Your task to perform on an android device: toggle pop-ups in chrome Image 0: 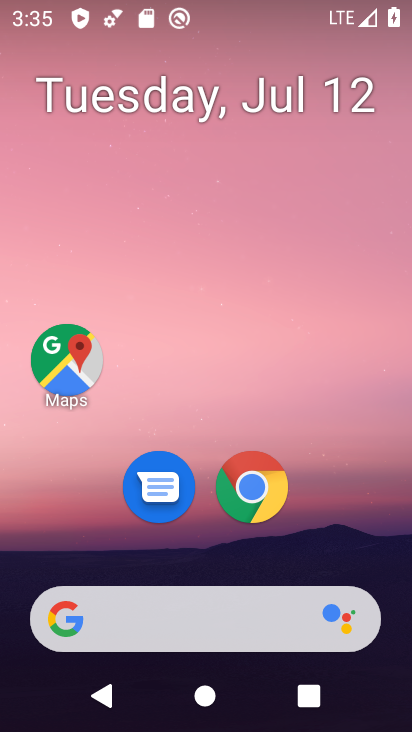
Step 0: drag from (188, 562) to (196, 70)
Your task to perform on an android device: toggle pop-ups in chrome Image 1: 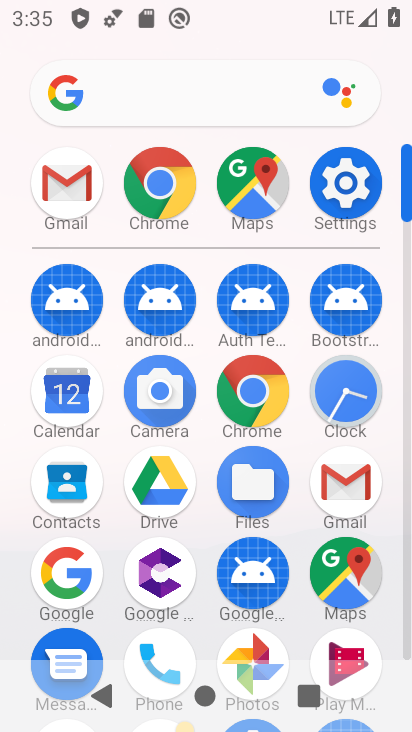
Step 1: click (180, 209)
Your task to perform on an android device: toggle pop-ups in chrome Image 2: 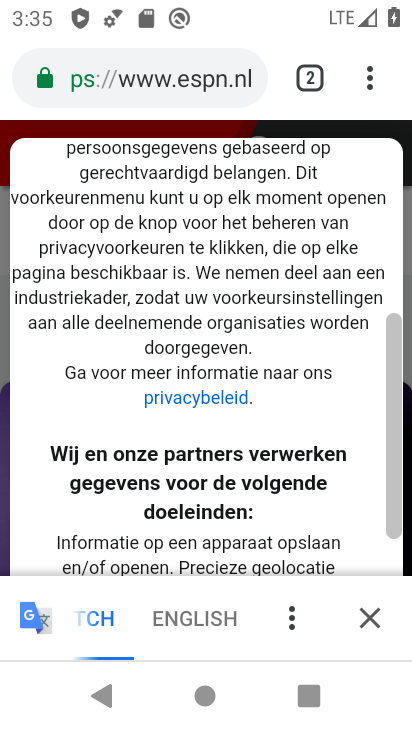
Step 2: click (372, 87)
Your task to perform on an android device: toggle pop-ups in chrome Image 3: 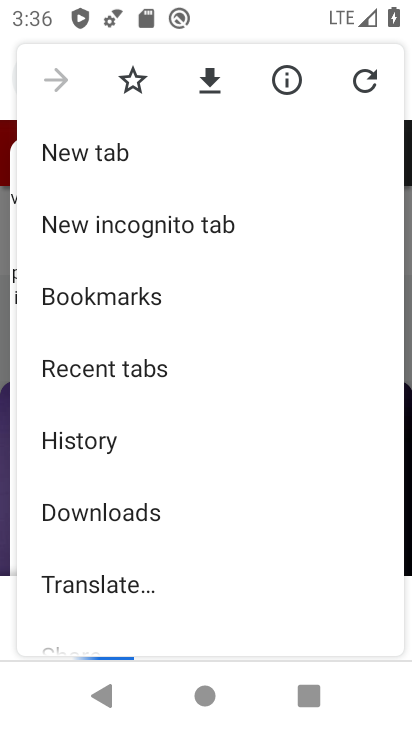
Step 3: drag from (172, 508) to (220, 142)
Your task to perform on an android device: toggle pop-ups in chrome Image 4: 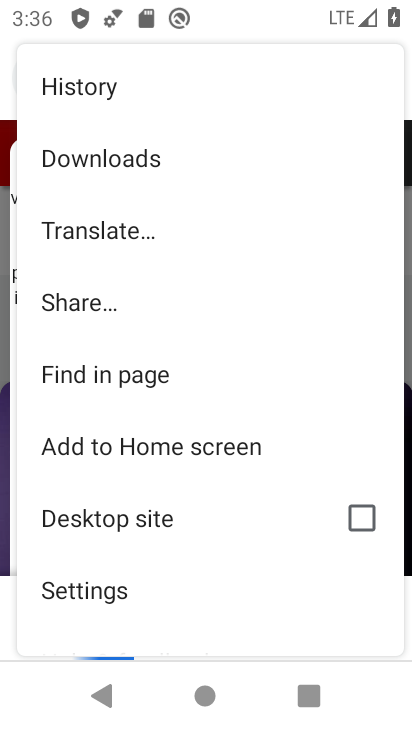
Step 4: click (76, 592)
Your task to perform on an android device: toggle pop-ups in chrome Image 5: 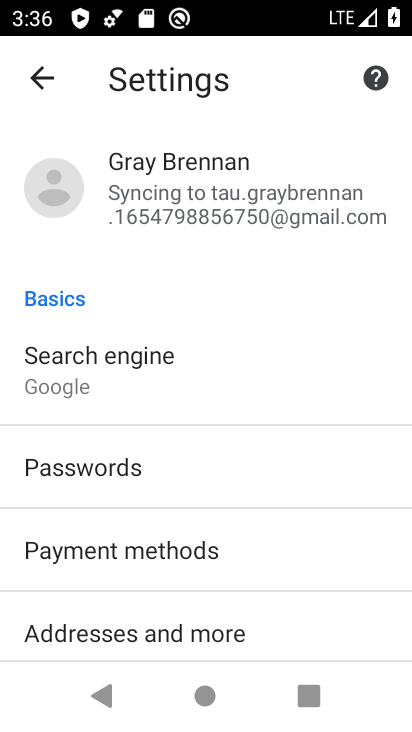
Step 5: drag from (78, 587) to (172, 197)
Your task to perform on an android device: toggle pop-ups in chrome Image 6: 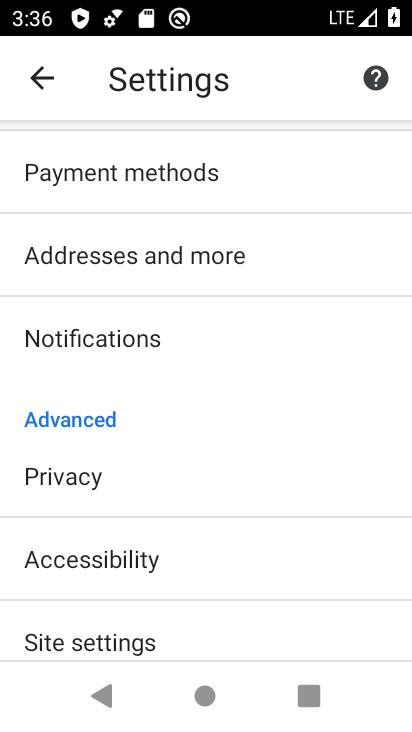
Step 6: drag from (119, 542) to (194, 129)
Your task to perform on an android device: toggle pop-ups in chrome Image 7: 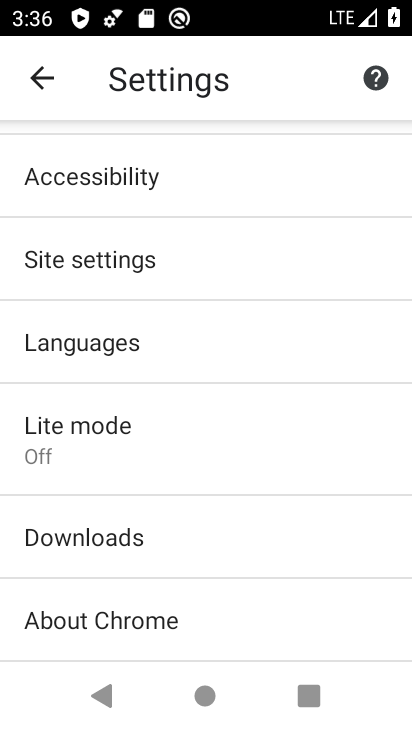
Step 7: drag from (118, 568) to (155, 191)
Your task to perform on an android device: toggle pop-ups in chrome Image 8: 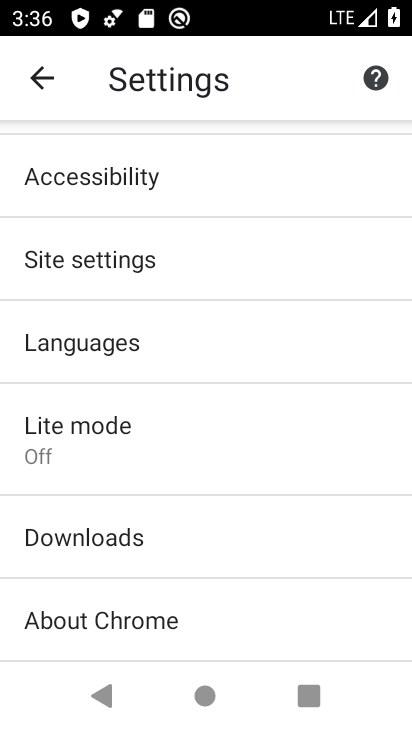
Step 8: drag from (183, 553) to (246, 217)
Your task to perform on an android device: toggle pop-ups in chrome Image 9: 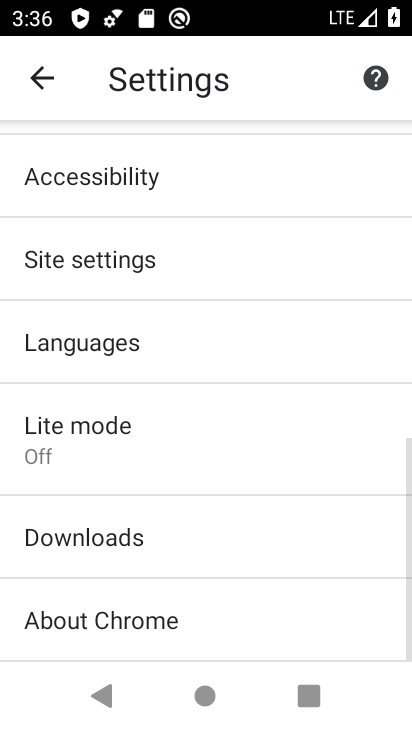
Step 9: click (127, 253)
Your task to perform on an android device: toggle pop-ups in chrome Image 10: 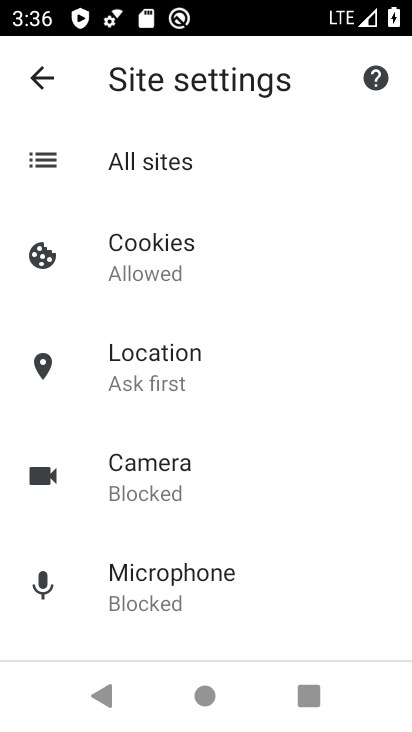
Step 10: drag from (201, 504) to (249, 186)
Your task to perform on an android device: toggle pop-ups in chrome Image 11: 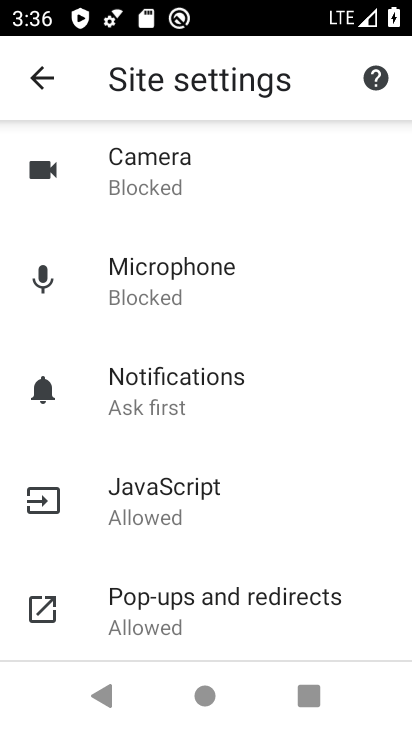
Step 11: click (215, 602)
Your task to perform on an android device: toggle pop-ups in chrome Image 12: 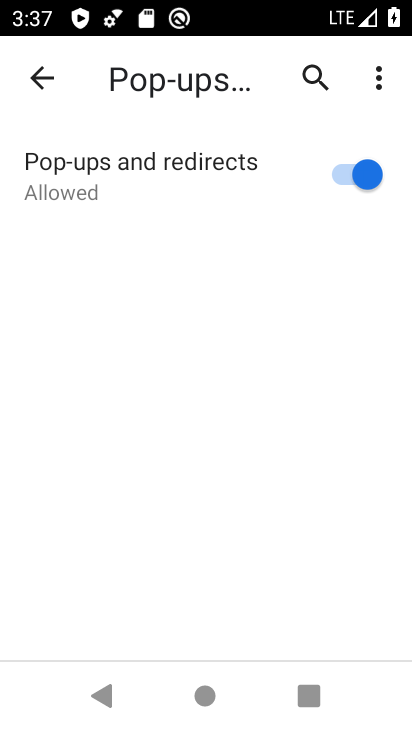
Step 12: click (335, 171)
Your task to perform on an android device: toggle pop-ups in chrome Image 13: 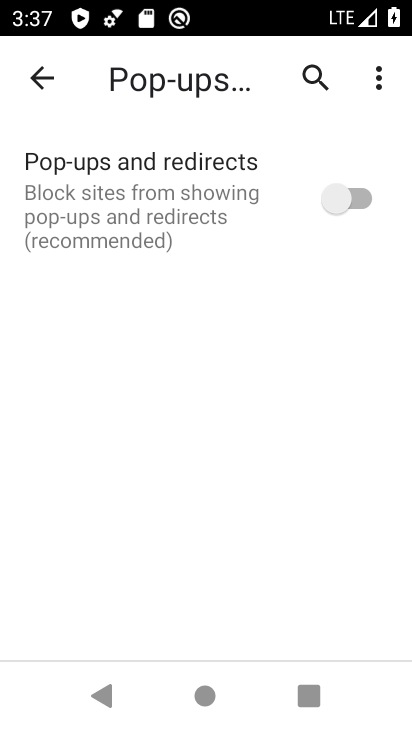
Step 13: task complete